Your task to perform on an android device: set default search engine in the chrome app Image 0: 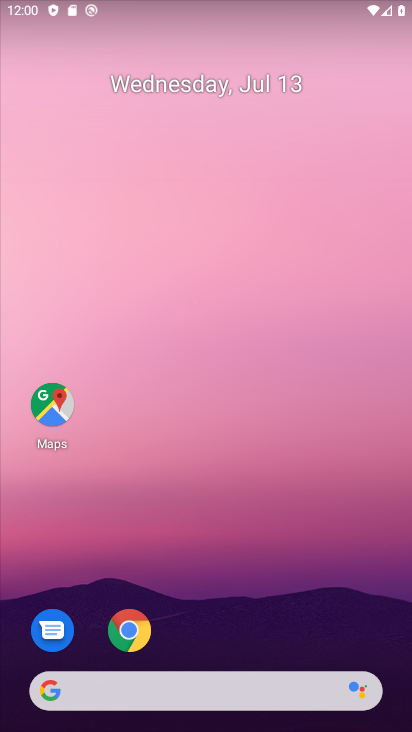
Step 0: press home button
Your task to perform on an android device: set default search engine in the chrome app Image 1: 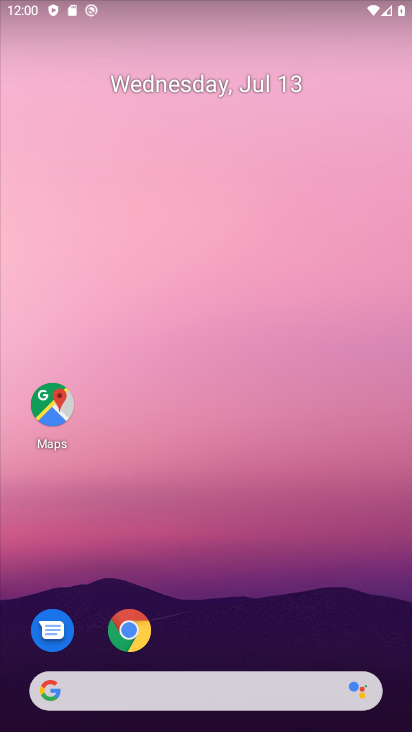
Step 1: drag from (221, 649) to (266, 0)
Your task to perform on an android device: set default search engine in the chrome app Image 2: 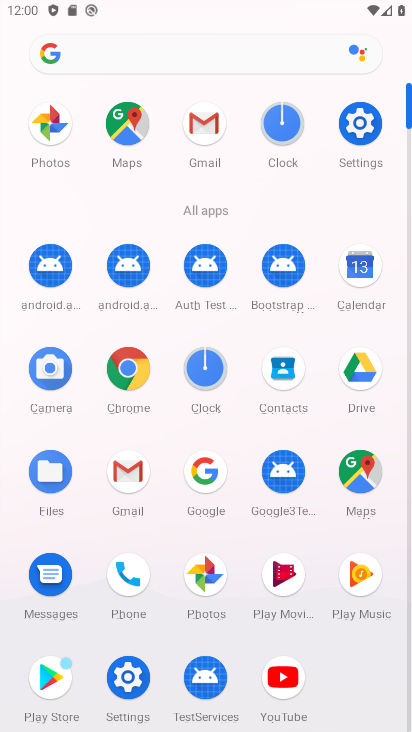
Step 2: click (199, 117)
Your task to perform on an android device: set default search engine in the chrome app Image 3: 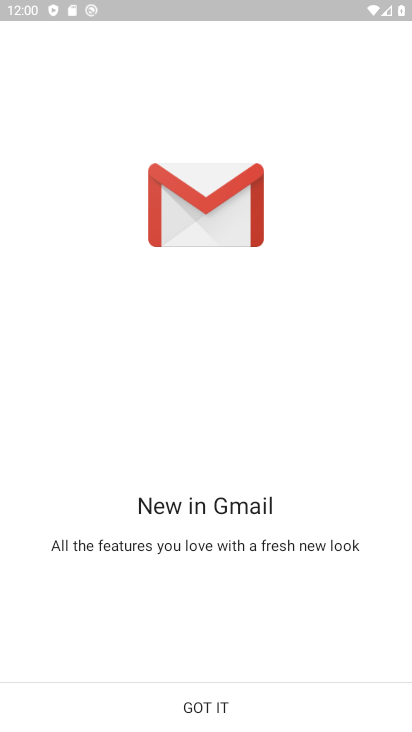
Step 3: click (209, 711)
Your task to perform on an android device: set default search engine in the chrome app Image 4: 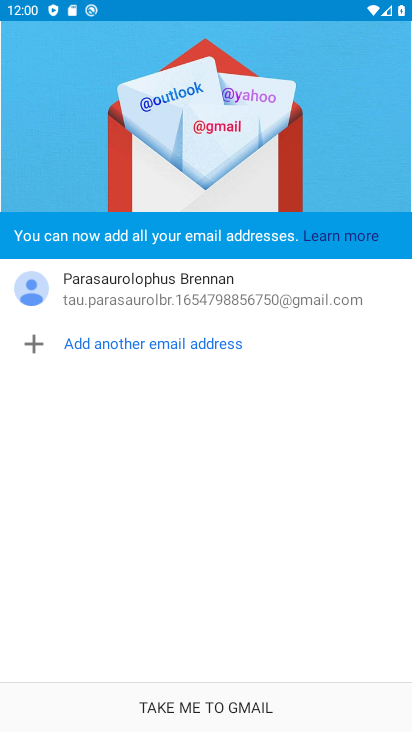
Step 4: click (202, 714)
Your task to perform on an android device: set default search engine in the chrome app Image 5: 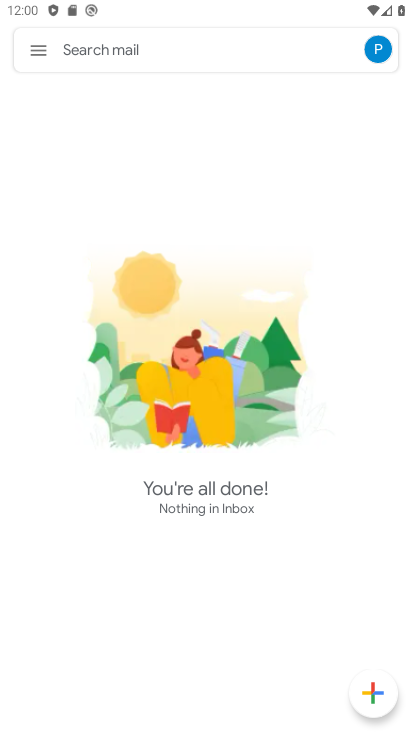
Step 5: click (35, 43)
Your task to perform on an android device: set default search engine in the chrome app Image 6: 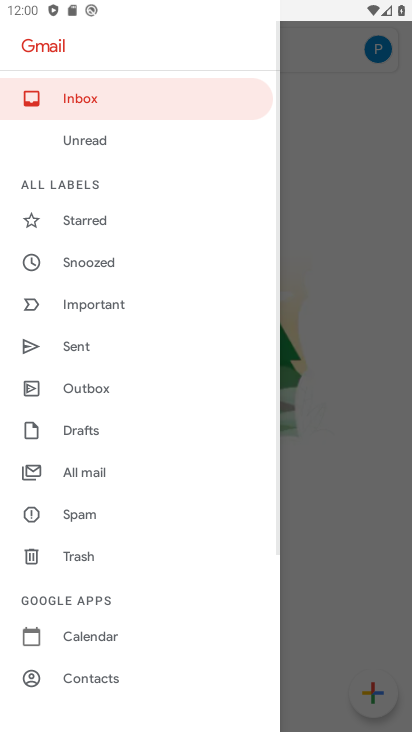
Step 6: drag from (120, 648) to (167, 57)
Your task to perform on an android device: set default search engine in the chrome app Image 7: 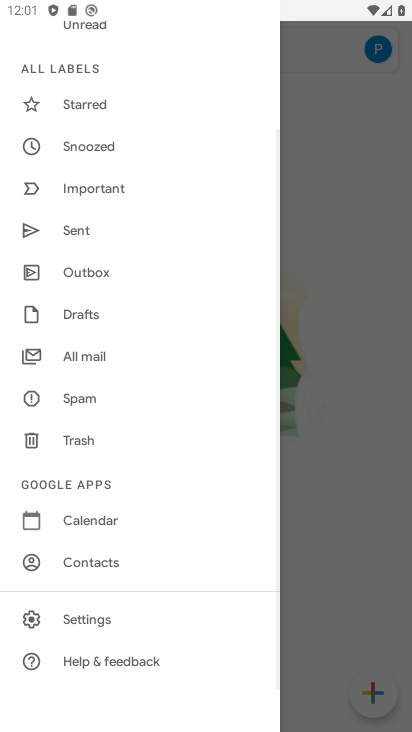
Step 7: click (116, 619)
Your task to perform on an android device: set default search engine in the chrome app Image 8: 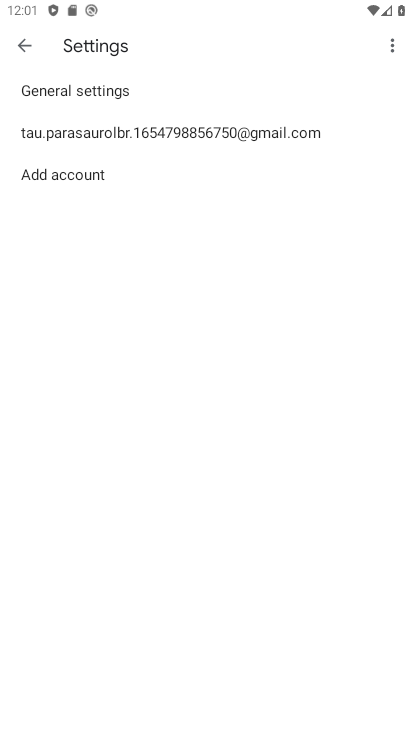
Step 8: press home button
Your task to perform on an android device: set default search engine in the chrome app Image 9: 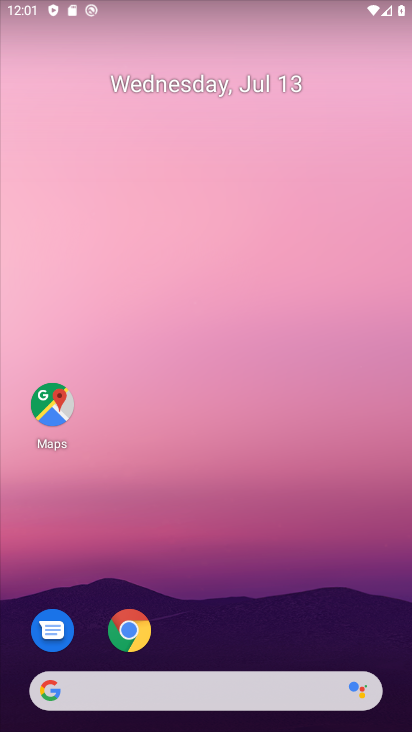
Step 9: drag from (230, 621) to (236, 54)
Your task to perform on an android device: set default search engine in the chrome app Image 10: 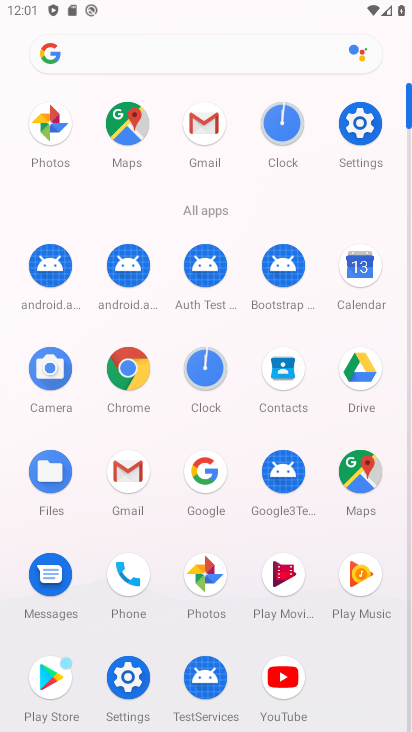
Step 10: click (124, 361)
Your task to perform on an android device: set default search engine in the chrome app Image 11: 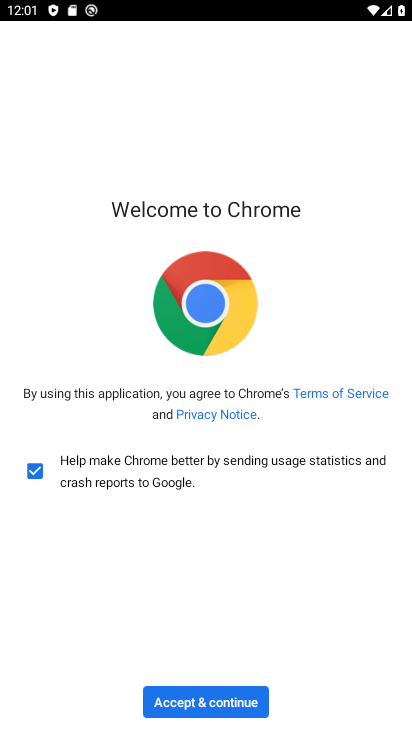
Step 11: click (206, 700)
Your task to perform on an android device: set default search engine in the chrome app Image 12: 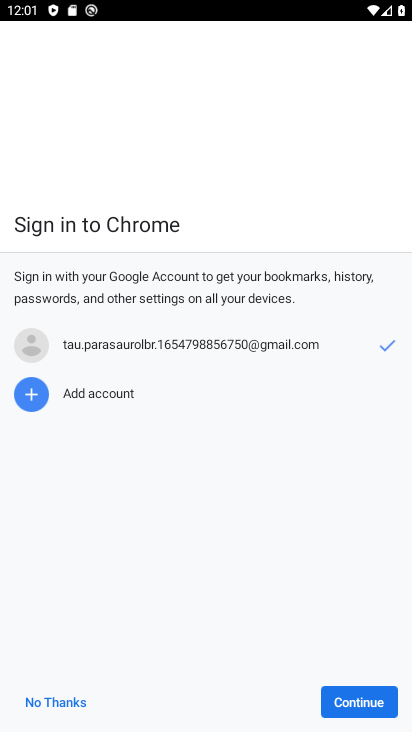
Step 12: click (357, 701)
Your task to perform on an android device: set default search engine in the chrome app Image 13: 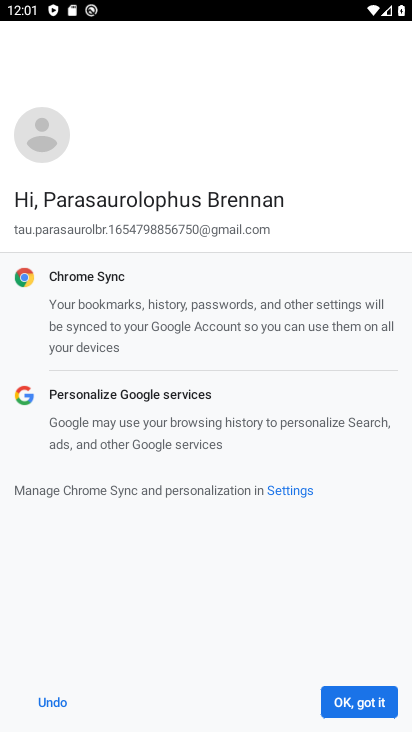
Step 13: click (358, 700)
Your task to perform on an android device: set default search engine in the chrome app Image 14: 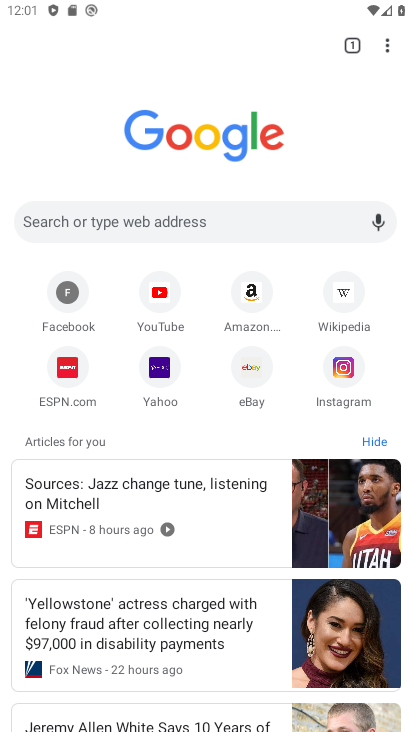
Step 14: click (383, 33)
Your task to perform on an android device: set default search engine in the chrome app Image 15: 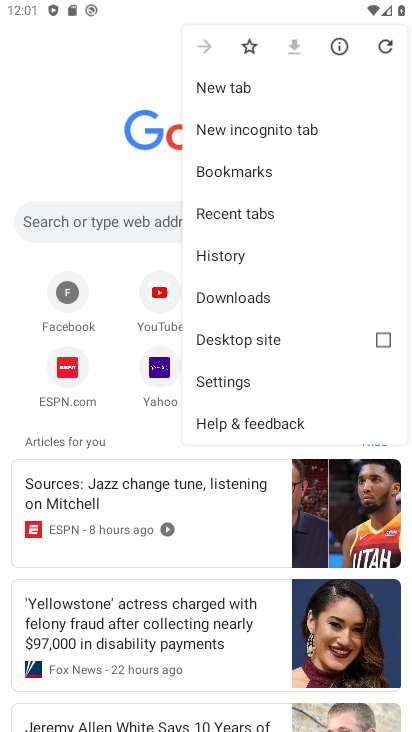
Step 15: click (262, 377)
Your task to perform on an android device: set default search engine in the chrome app Image 16: 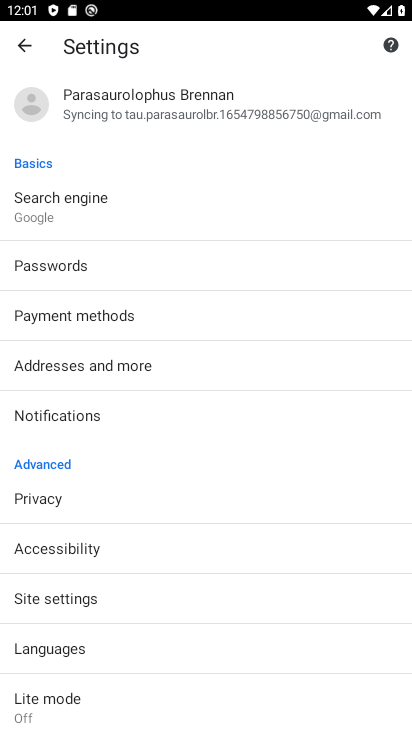
Step 16: click (91, 219)
Your task to perform on an android device: set default search engine in the chrome app Image 17: 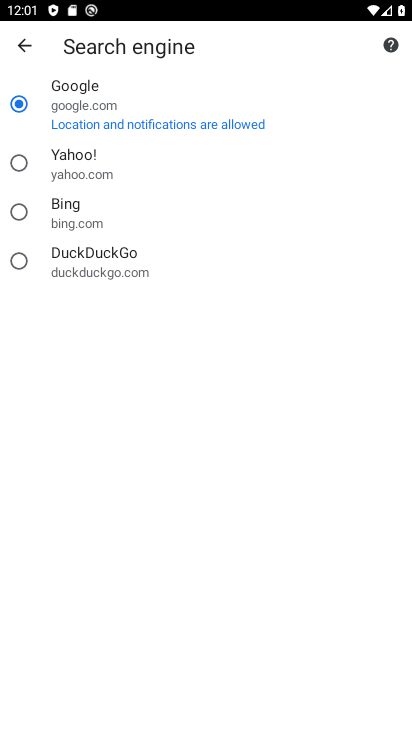
Step 17: click (26, 209)
Your task to perform on an android device: set default search engine in the chrome app Image 18: 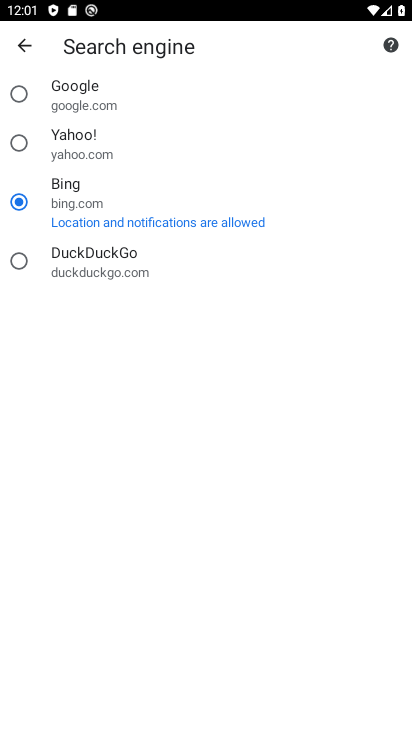
Step 18: task complete